Your task to perform on an android device: Open my contact list Image 0: 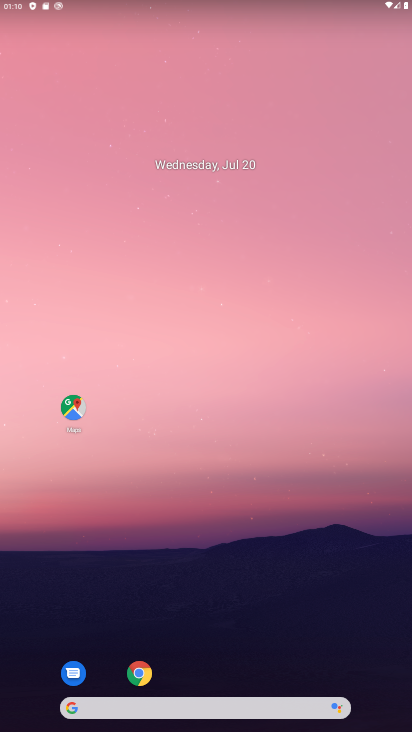
Step 0: drag from (194, 245) to (192, 189)
Your task to perform on an android device: Open my contact list Image 1: 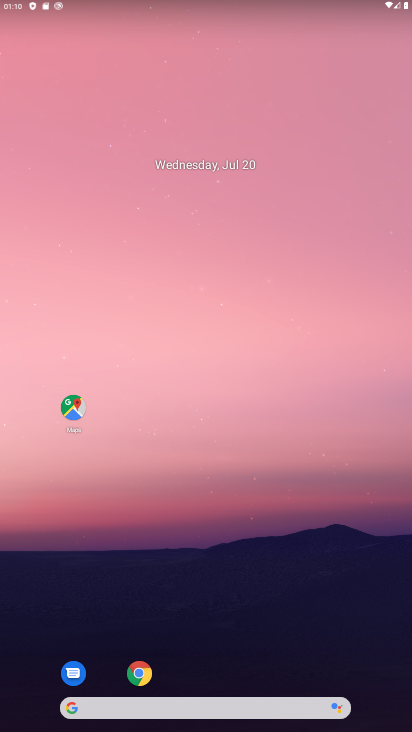
Step 1: drag from (204, 687) to (163, 230)
Your task to perform on an android device: Open my contact list Image 2: 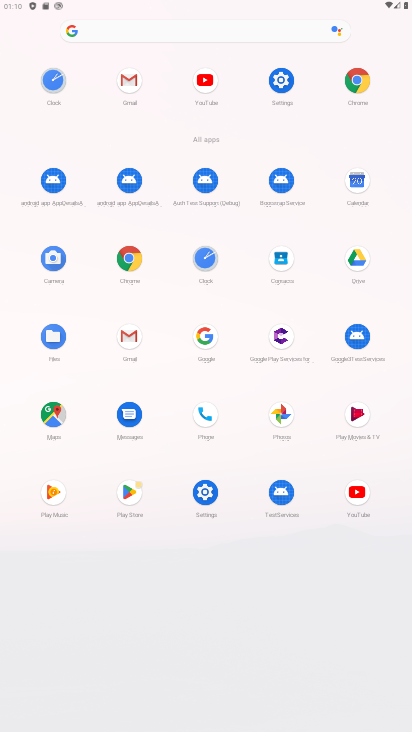
Step 2: click (287, 255)
Your task to perform on an android device: Open my contact list Image 3: 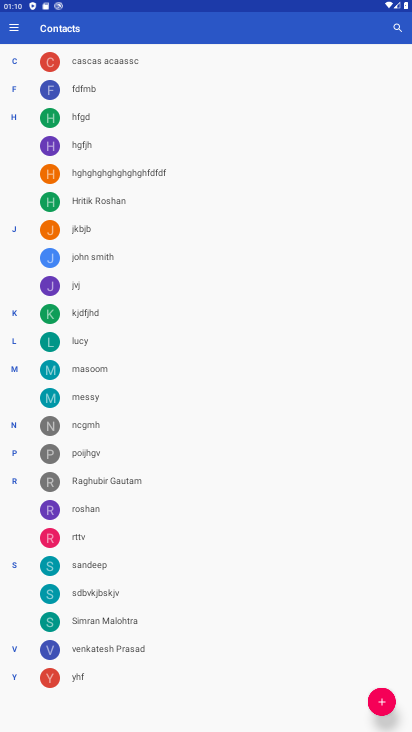
Step 3: task complete